Your task to perform on an android device: Go to Yahoo.com Image 0: 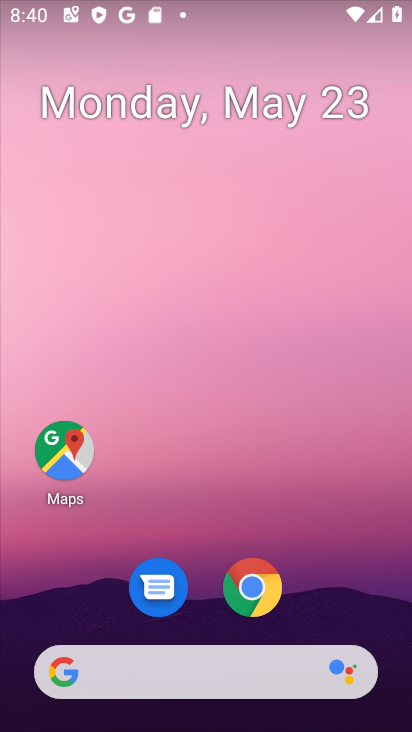
Step 0: click (262, 582)
Your task to perform on an android device: Go to Yahoo.com Image 1: 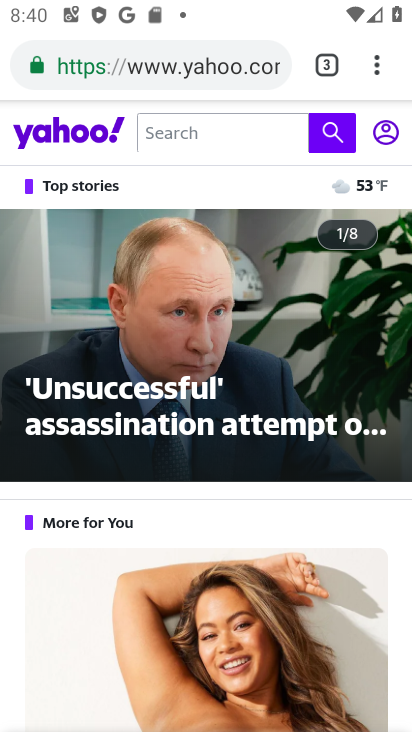
Step 1: task complete